Your task to perform on an android device: turn off priority inbox in the gmail app Image 0: 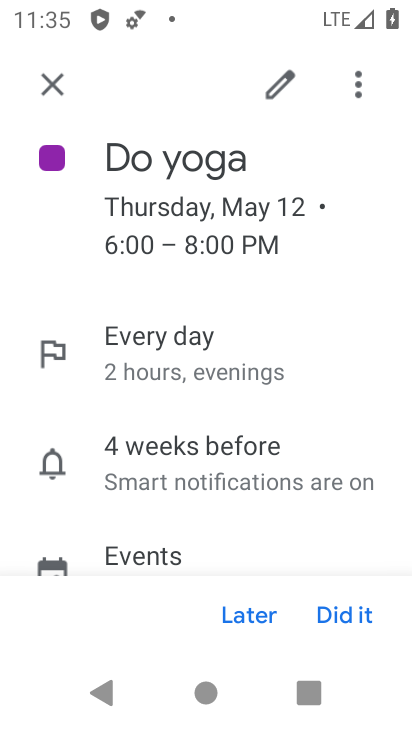
Step 0: press back button
Your task to perform on an android device: turn off priority inbox in the gmail app Image 1: 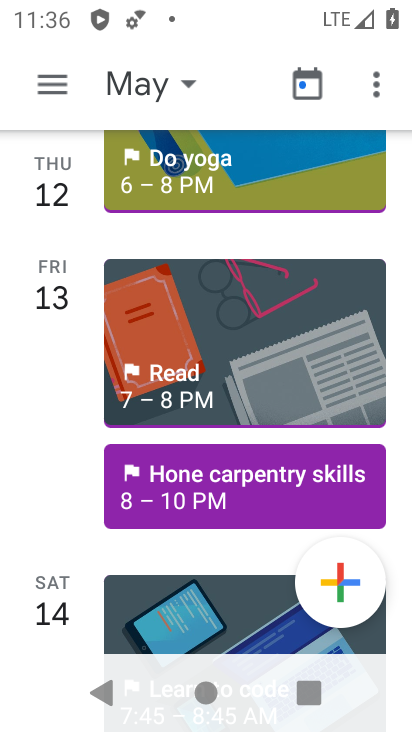
Step 1: press back button
Your task to perform on an android device: turn off priority inbox in the gmail app Image 2: 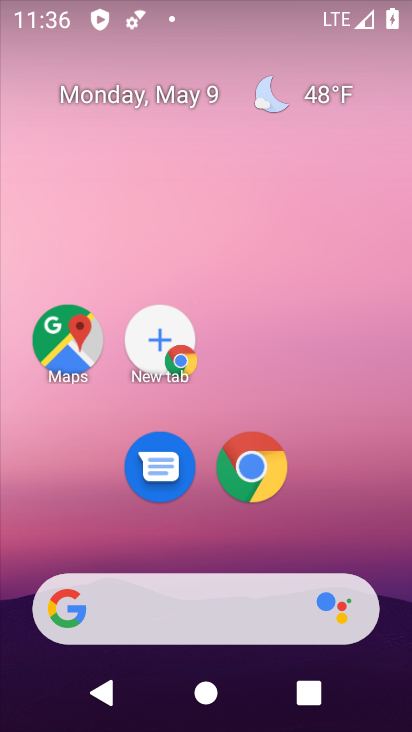
Step 2: drag from (346, 544) to (320, 481)
Your task to perform on an android device: turn off priority inbox in the gmail app Image 3: 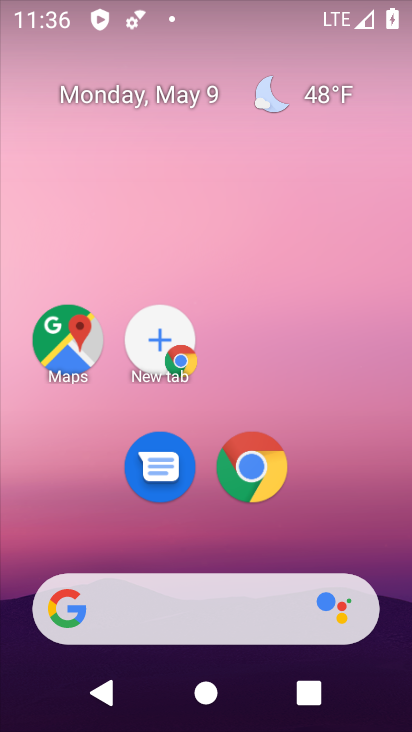
Step 3: drag from (374, 520) to (153, 229)
Your task to perform on an android device: turn off priority inbox in the gmail app Image 4: 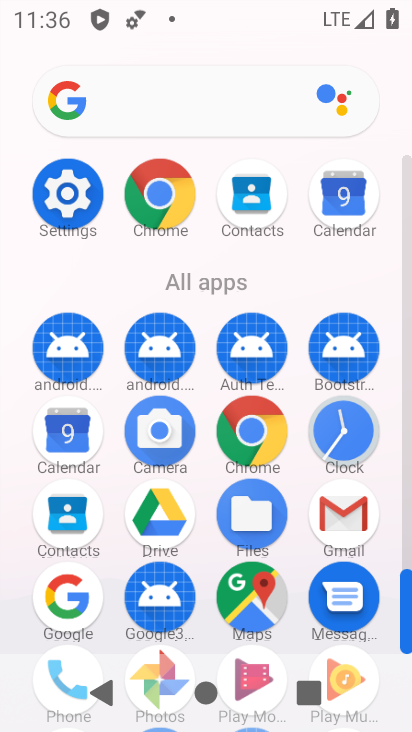
Step 4: click (357, 505)
Your task to perform on an android device: turn off priority inbox in the gmail app Image 5: 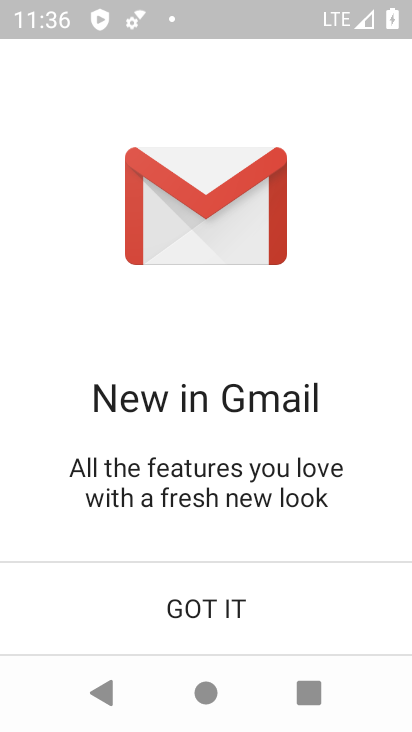
Step 5: click (192, 604)
Your task to perform on an android device: turn off priority inbox in the gmail app Image 6: 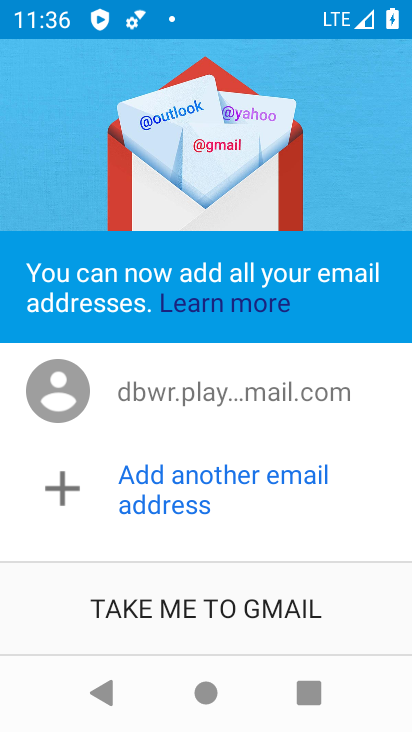
Step 6: click (192, 604)
Your task to perform on an android device: turn off priority inbox in the gmail app Image 7: 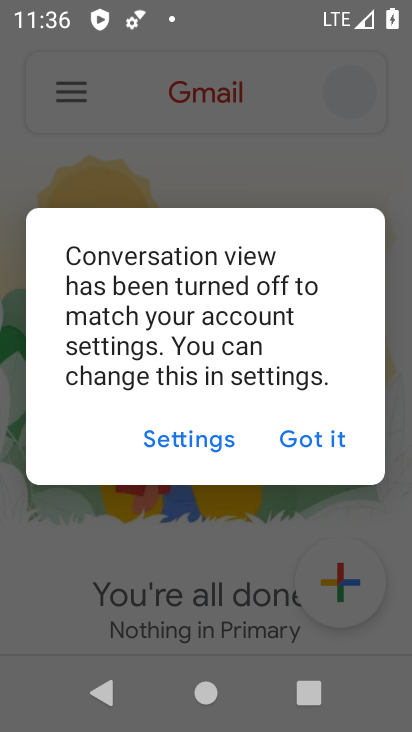
Step 7: click (311, 432)
Your task to perform on an android device: turn off priority inbox in the gmail app Image 8: 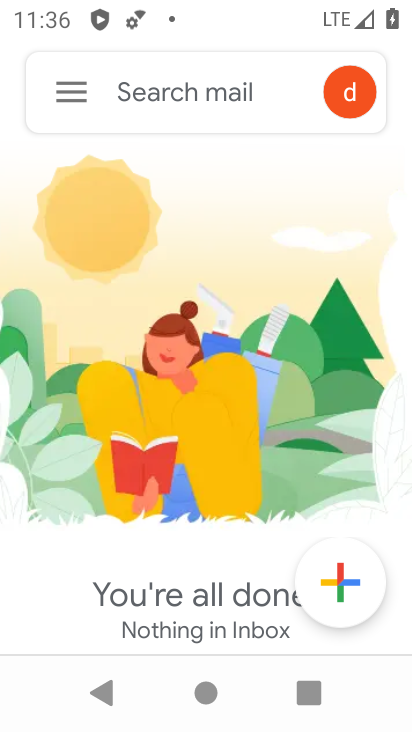
Step 8: drag from (76, 90) to (30, 489)
Your task to perform on an android device: turn off priority inbox in the gmail app Image 9: 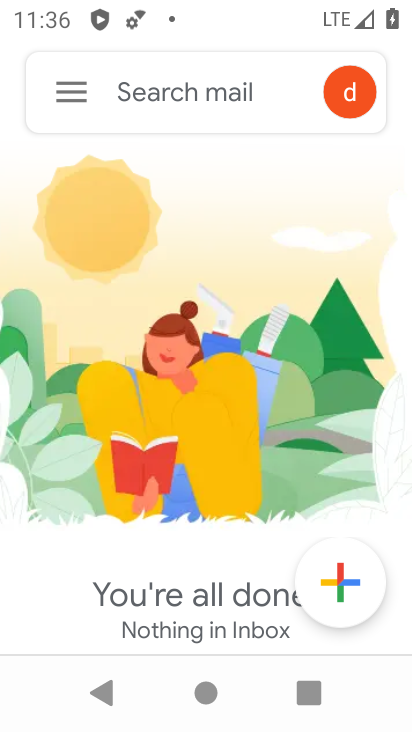
Step 9: click (79, 92)
Your task to perform on an android device: turn off priority inbox in the gmail app Image 10: 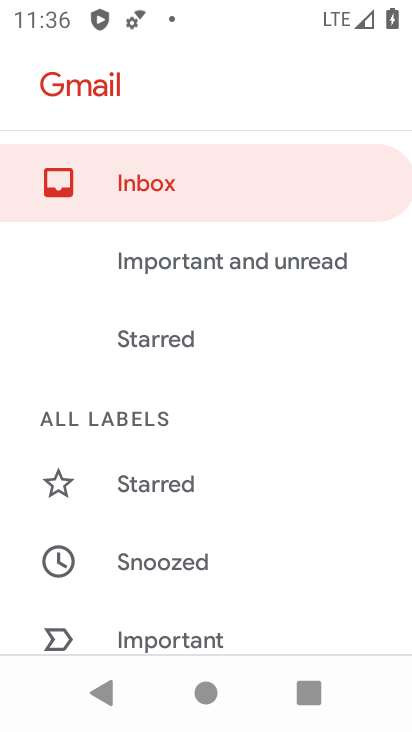
Step 10: drag from (221, 529) to (201, 201)
Your task to perform on an android device: turn off priority inbox in the gmail app Image 11: 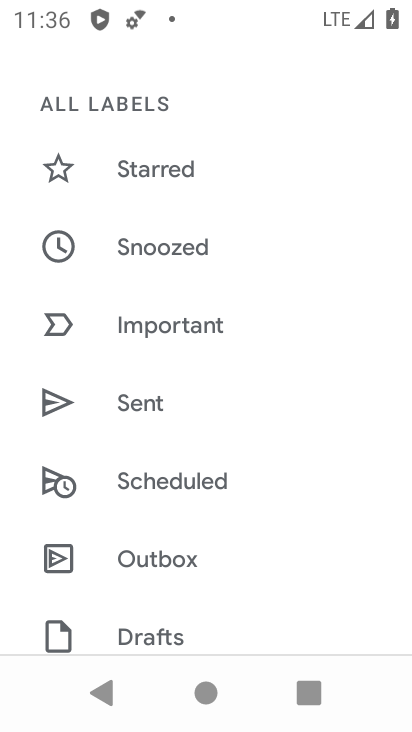
Step 11: drag from (256, 500) to (216, 177)
Your task to perform on an android device: turn off priority inbox in the gmail app Image 12: 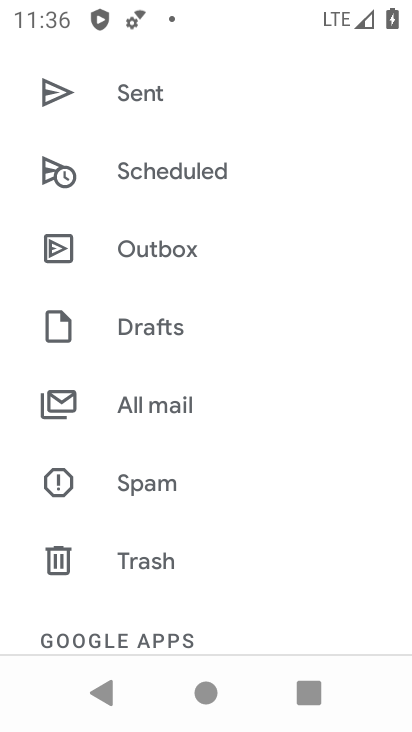
Step 12: click (156, 405)
Your task to perform on an android device: turn off priority inbox in the gmail app Image 13: 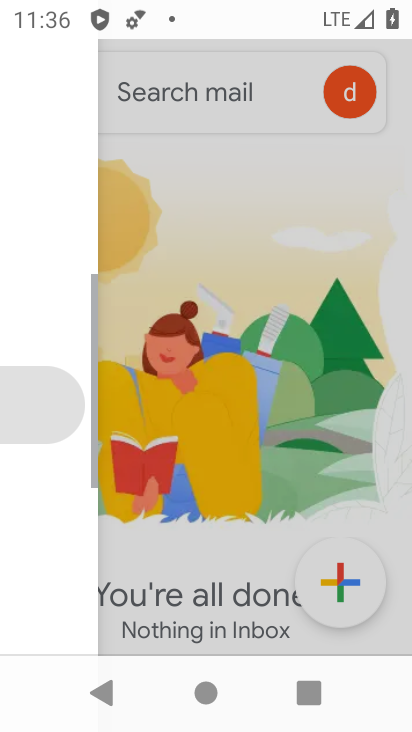
Step 13: click (157, 404)
Your task to perform on an android device: turn off priority inbox in the gmail app Image 14: 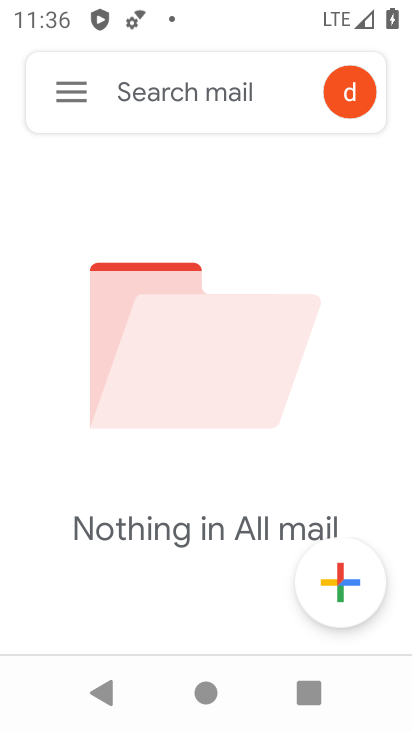
Step 14: click (70, 75)
Your task to perform on an android device: turn off priority inbox in the gmail app Image 15: 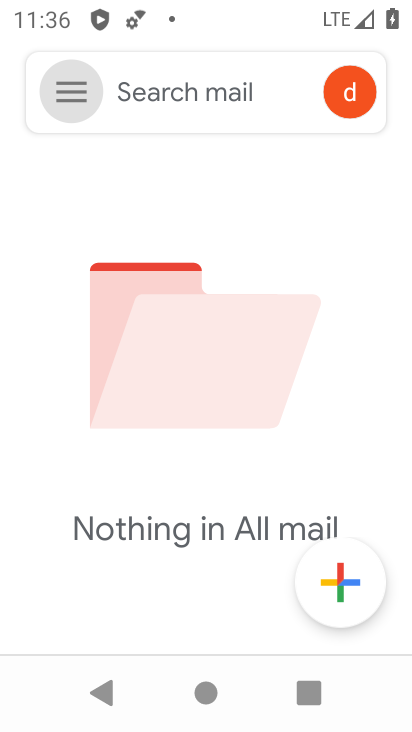
Step 15: click (72, 85)
Your task to perform on an android device: turn off priority inbox in the gmail app Image 16: 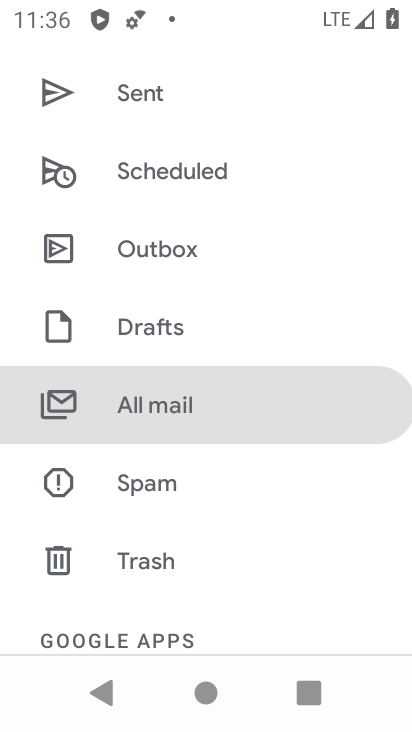
Step 16: drag from (217, 478) to (174, 193)
Your task to perform on an android device: turn off priority inbox in the gmail app Image 17: 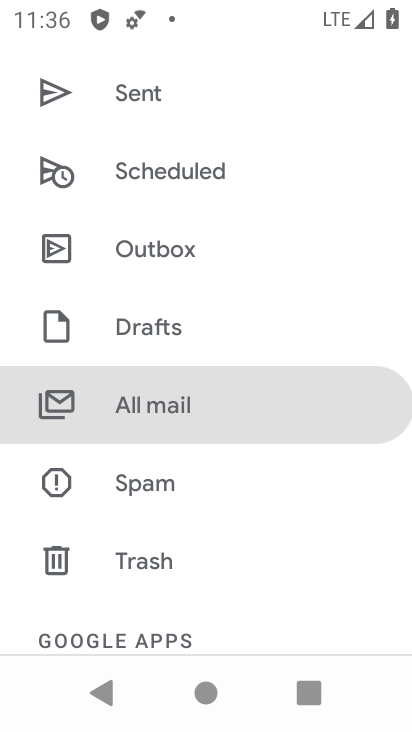
Step 17: drag from (155, 387) to (135, 61)
Your task to perform on an android device: turn off priority inbox in the gmail app Image 18: 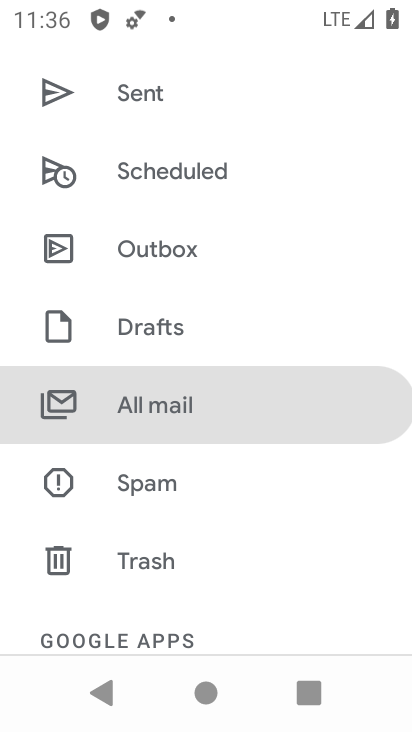
Step 18: drag from (239, 427) to (199, 229)
Your task to perform on an android device: turn off priority inbox in the gmail app Image 19: 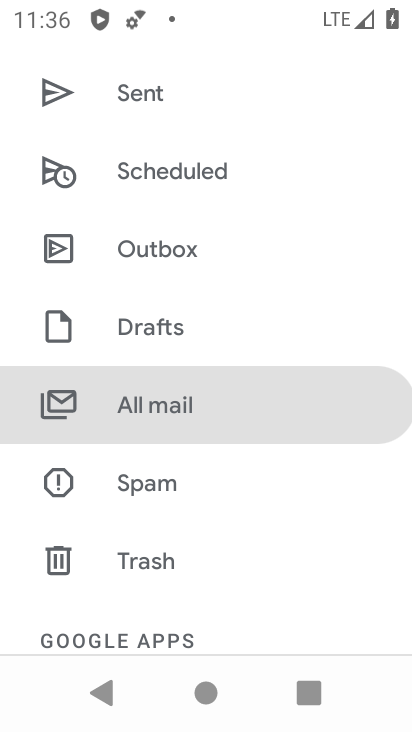
Step 19: drag from (250, 456) to (210, 308)
Your task to perform on an android device: turn off priority inbox in the gmail app Image 20: 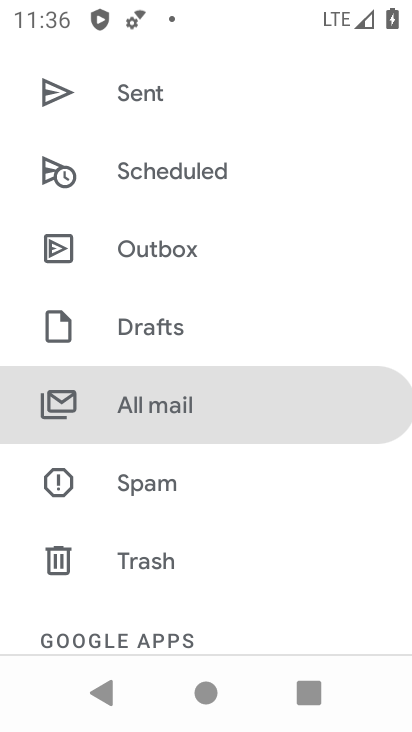
Step 20: drag from (247, 536) to (170, 37)
Your task to perform on an android device: turn off priority inbox in the gmail app Image 21: 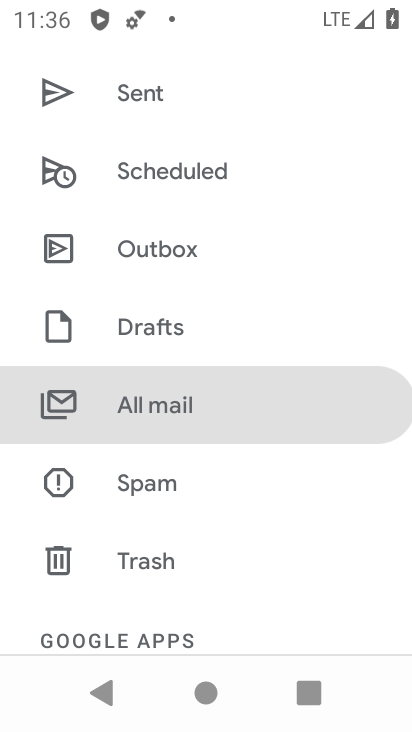
Step 21: drag from (208, 468) to (137, 196)
Your task to perform on an android device: turn off priority inbox in the gmail app Image 22: 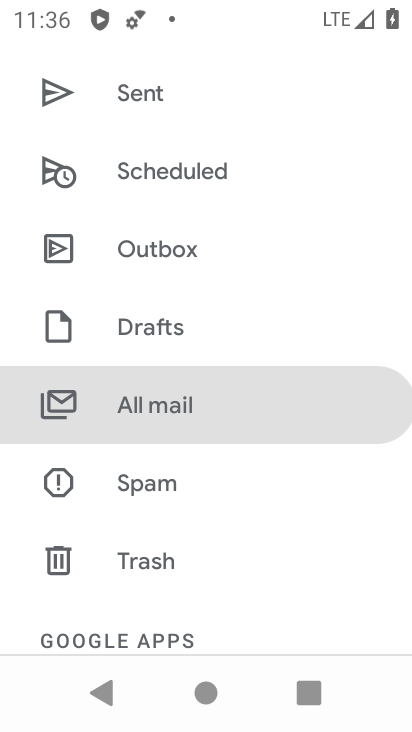
Step 22: drag from (239, 500) to (162, 107)
Your task to perform on an android device: turn off priority inbox in the gmail app Image 23: 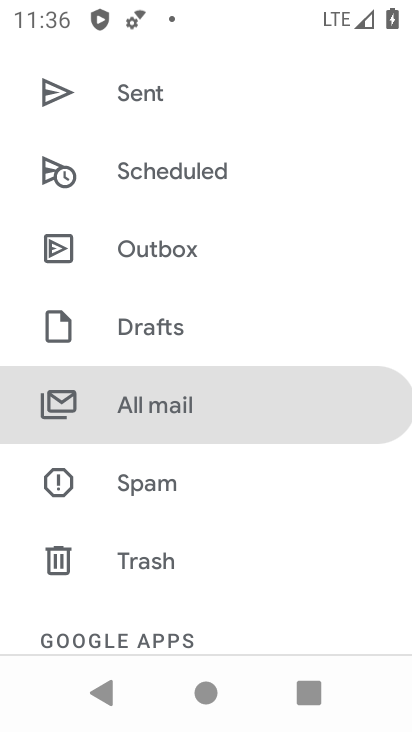
Step 23: drag from (161, 479) to (147, 289)
Your task to perform on an android device: turn off priority inbox in the gmail app Image 24: 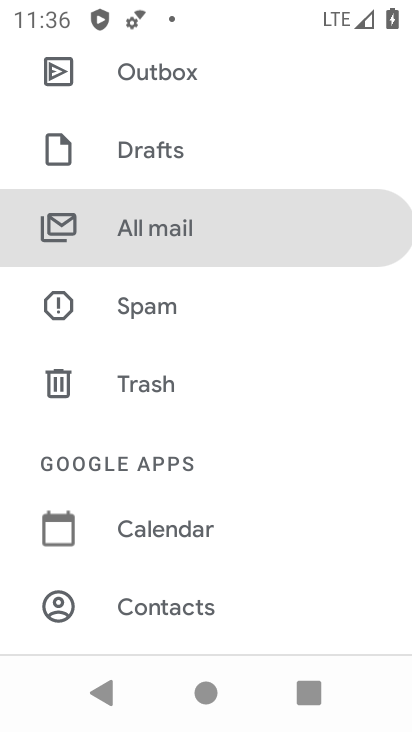
Step 24: drag from (131, 514) to (128, 269)
Your task to perform on an android device: turn off priority inbox in the gmail app Image 25: 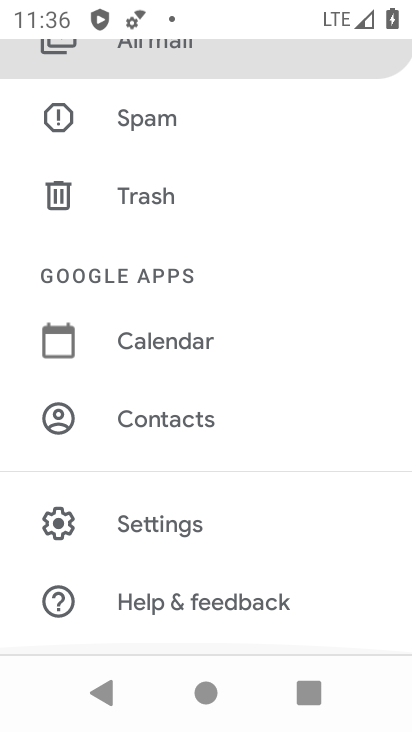
Step 25: drag from (201, 490) to (107, 186)
Your task to perform on an android device: turn off priority inbox in the gmail app Image 26: 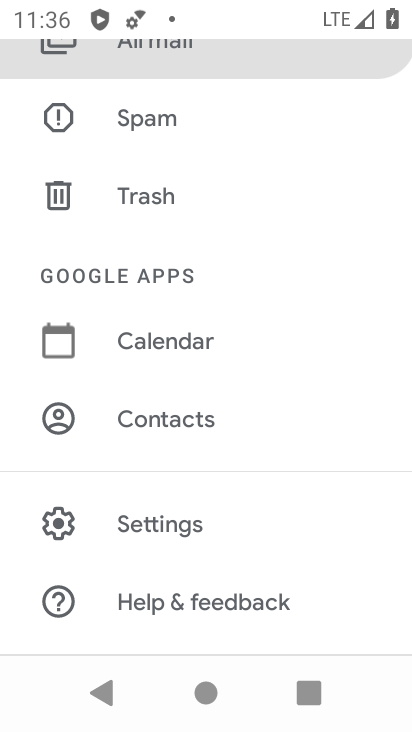
Step 26: click (158, 524)
Your task to perform on an android device: turn off priority inbox in the gmail app Image 27: 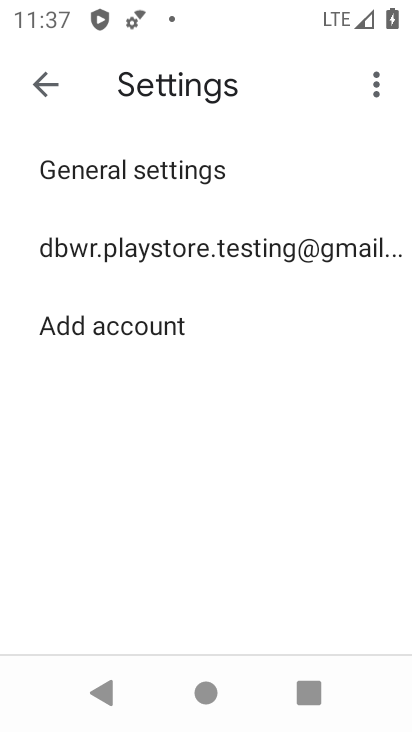
Step 27: click (173, 248)
Your task to perform on an android device: turn off priority inbox in the gmail app Image 28: 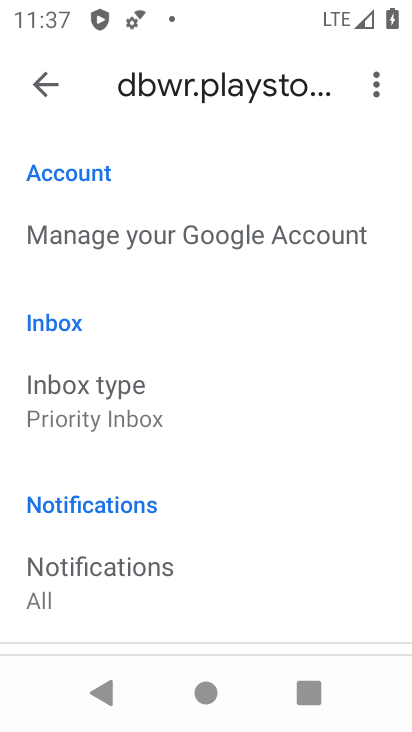
Step 28: click (86, 420)
Your task to perform on an android device: turn off priority inbox in the gmail app Image 29: 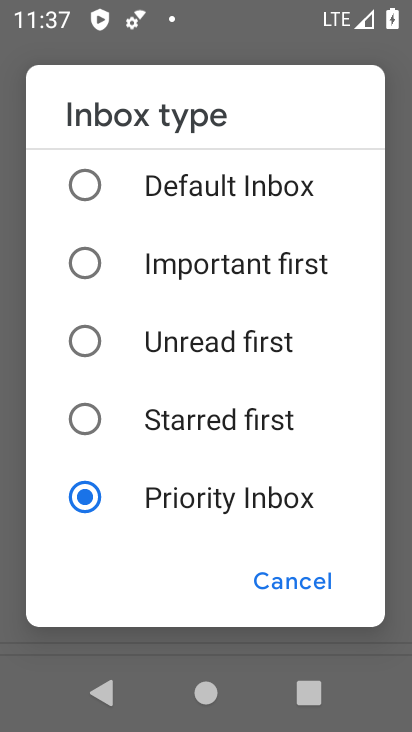
Step 29: click (84, 413)
Your task to perform on an android device: turn off priority inbox in the gmail app Image 30: 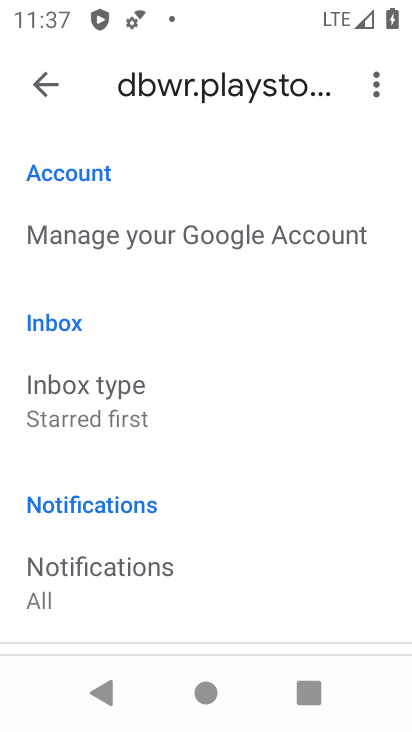
Step 30: task complete